Your task to perform on an android device: Open wifi settings Image 0: 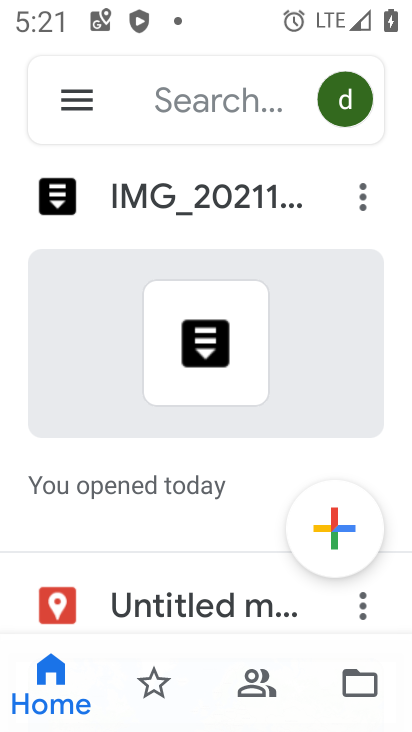
Step 0: press home button
Your task to perform on an android device: Open wifi settings Image 1: 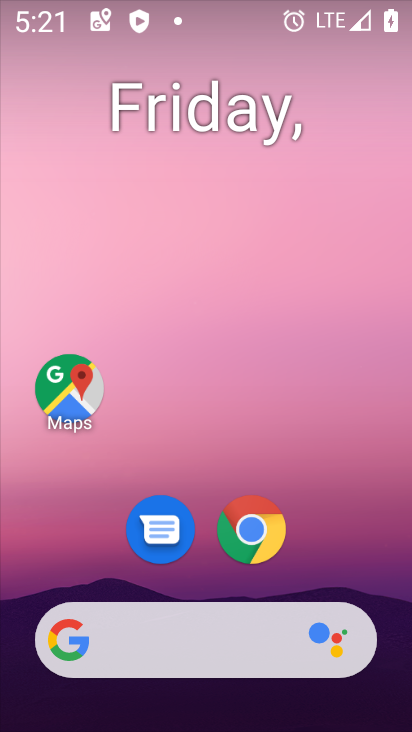
Step 1: drag from (324, 551) to (215, 59)
Your task to perform on an android device: Open wifi settings Image 2: 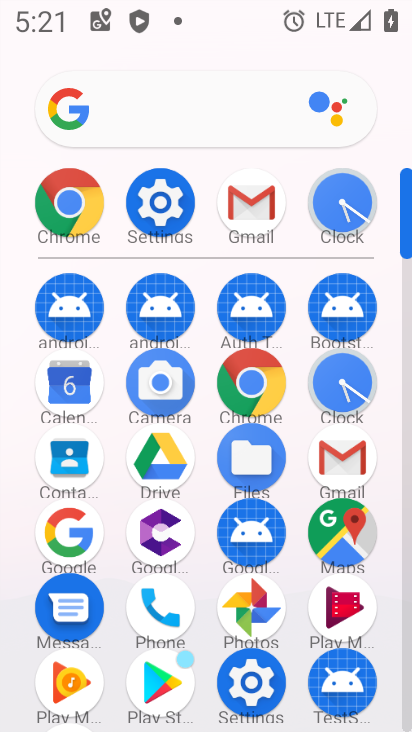
Step 2: click (153, 215)
Your task to perform on an android device: Open wifi settings Image 3: 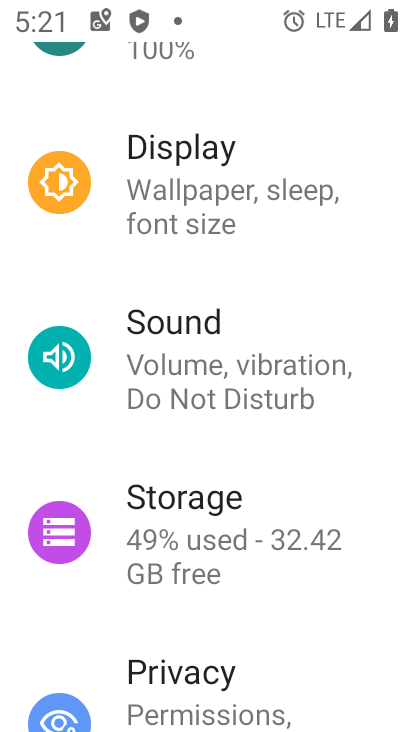
Step 3: drag from (220, 216) to (226, 570)
Your task to perform on an android device: Open wifi settings Image 4: 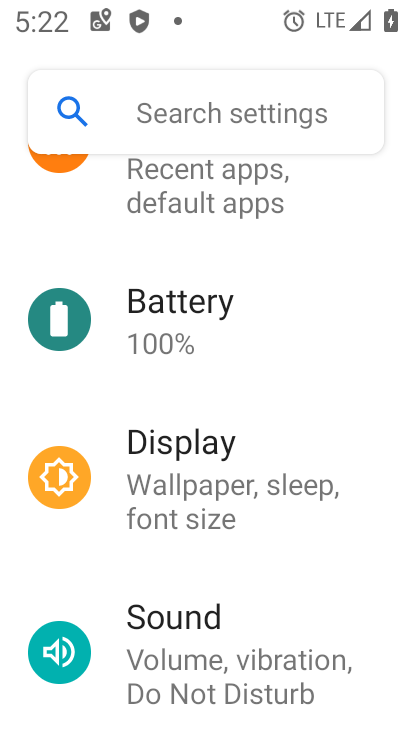
Step 4: drag from (237, 251) to (224, 660)
Your task to perform on an android device: Open wifi settings Image 5: 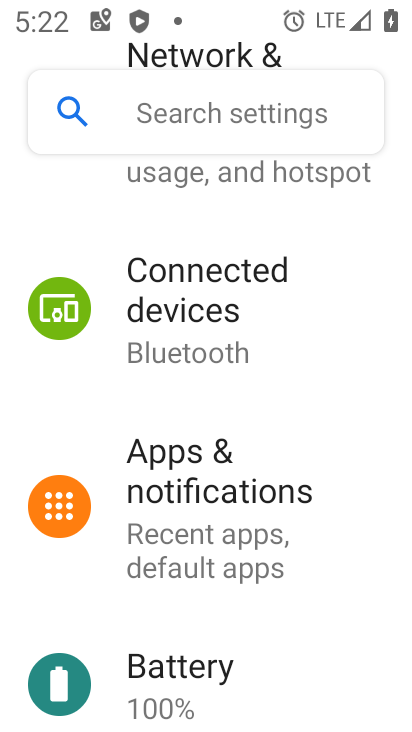
Step 5: drag from (202, 212) to (198, 728)
Your task to perform on an android device: Open wifi settings Image 6: 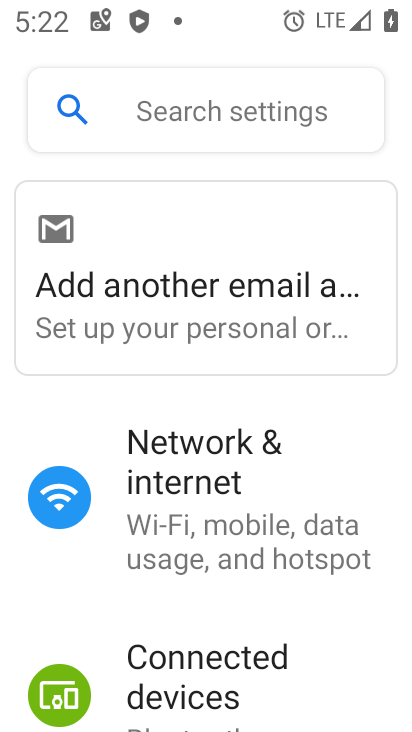
Step 6: click (163, 467)
Your task to perform on an android device: Open wifi settings Image 7: 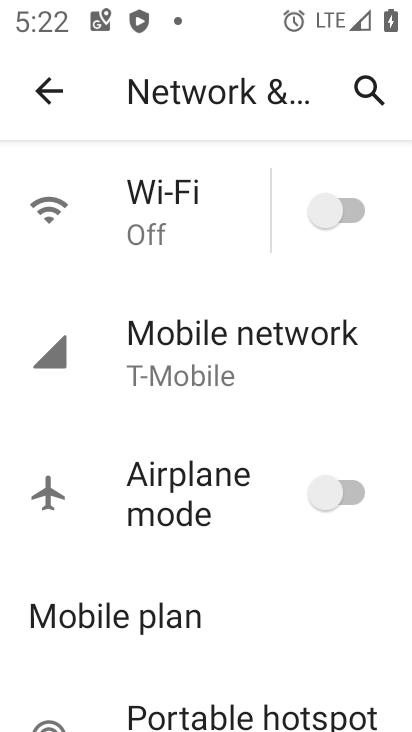
Step 7: click (196, 192)
Your task to perform on an android device: Open wifi settings Image 8: 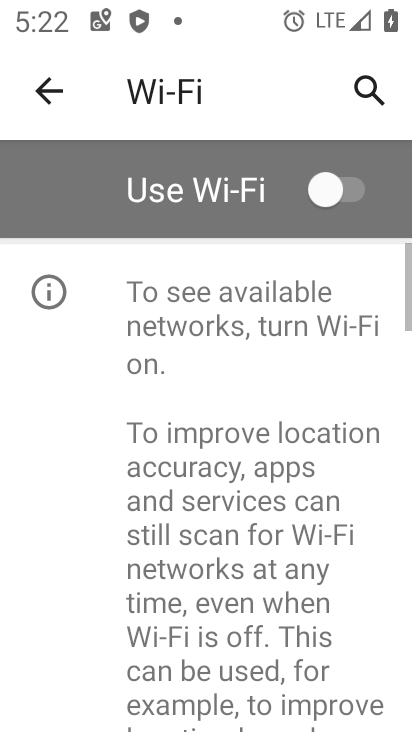
Step 8: task complete